Your task to perform on an android device: Turn off the flashlight Image 0: 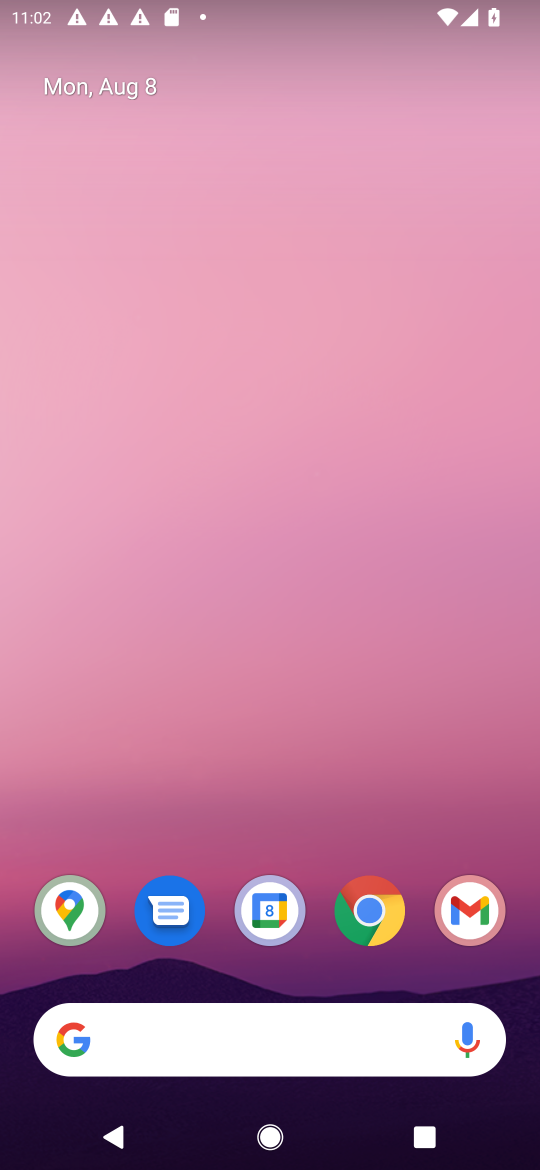
Step 0: drag from (300, 968) to (219, 15)
Your task to perform on an android device: Turn off the flashlight Image 1: 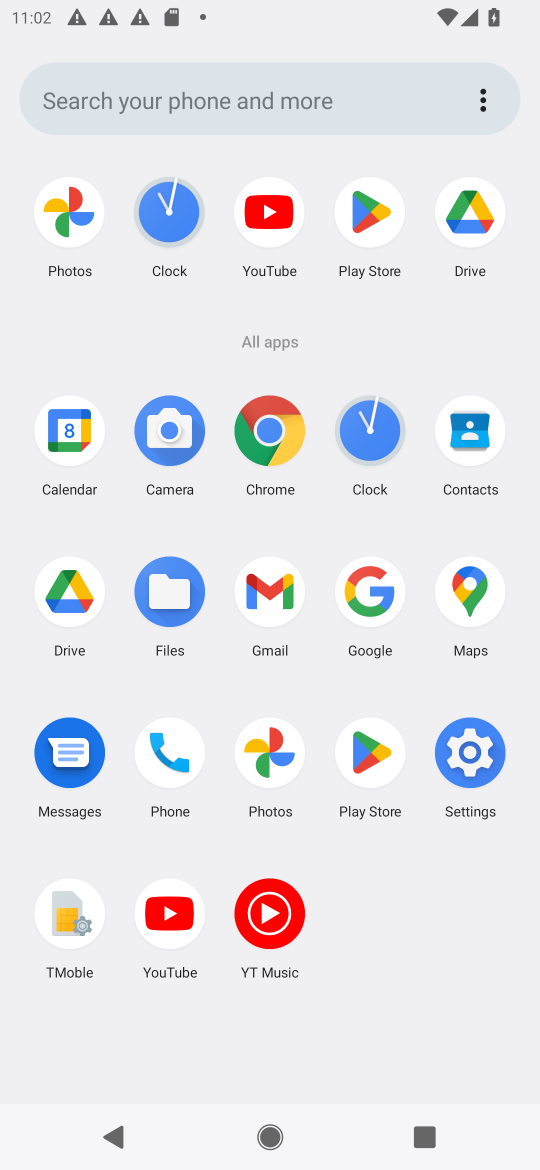
Step 1: click (456, 748)
Your task to perform on an android device: Turn off the flashlight Image 2: 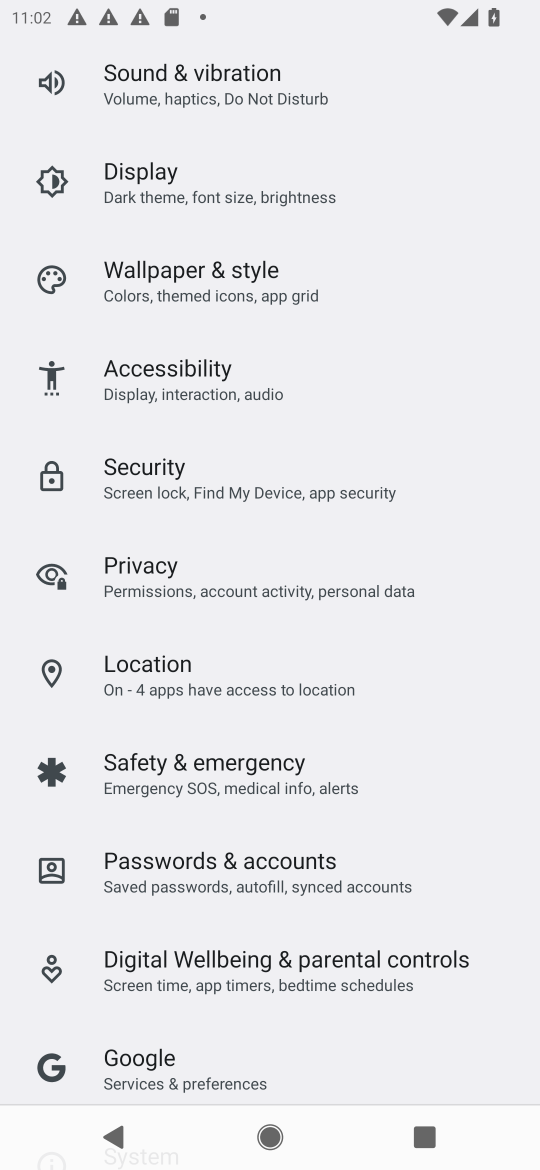
Step 2: task complete